Your task to perform on an android device: change text size in settings app Image 0: 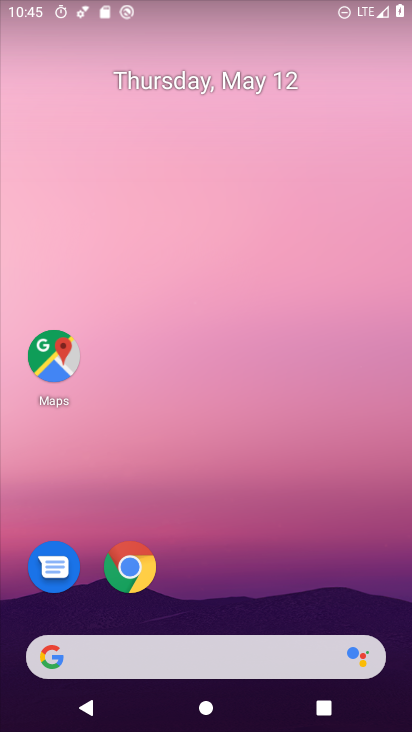
Step 0: drag from (261, 591) to (310, 259)
Your task to perform on an android device: change text size in settings app Image 1: 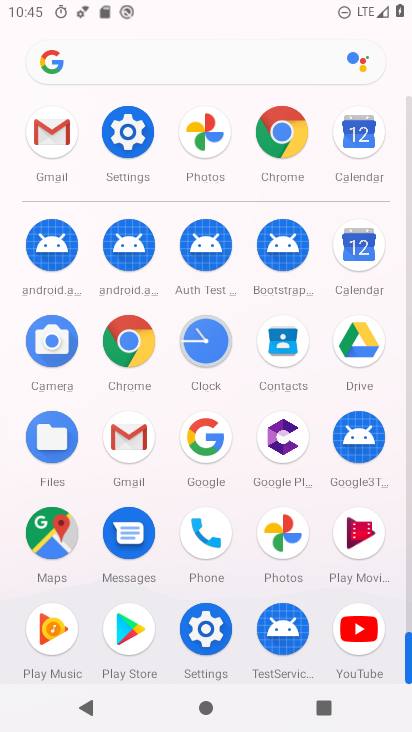
Step 1: click (130, 149)
Your task to perform on an android device: change text size in settings app Image 2: 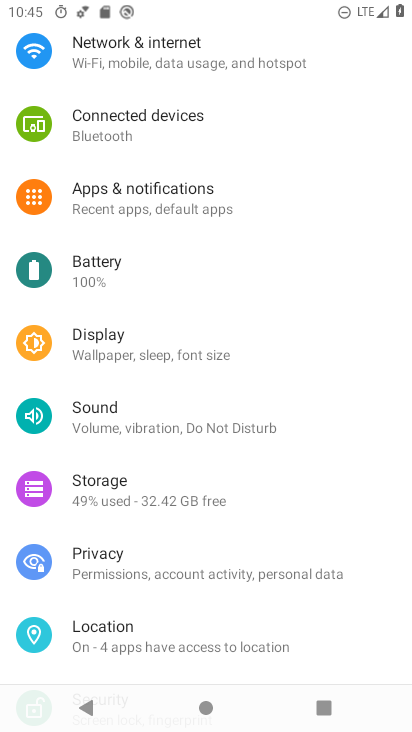
Step 2: drag from (158, 262) to (119, 506)
Your task to perform on an android device: change text size in settings app Image 3: 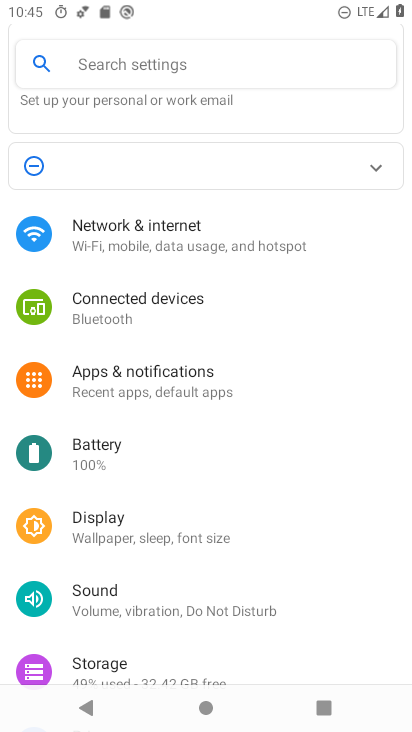
Step 3: drag from (180, 515) to (197, 399)
Your task to perform on an android device: change text size in settings app Image 4: 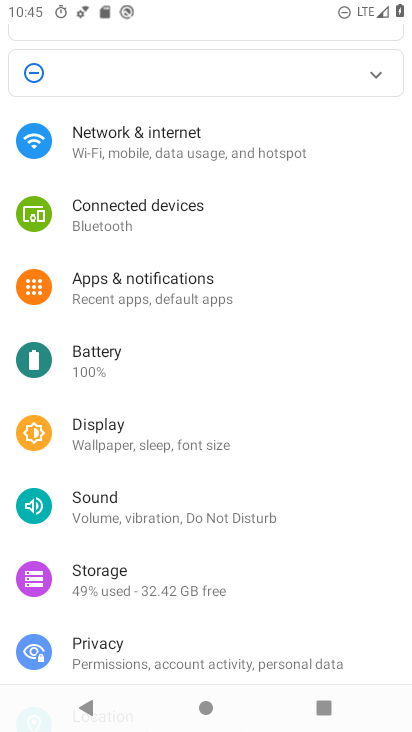
Step 4: drag from (183, 449) to (185, 249)
Your task to perform on an android device: change text size in settings app Image 5: 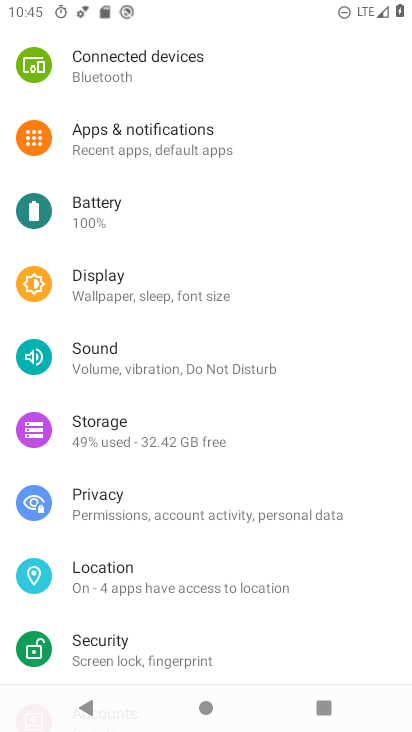
Step 5: drag from (139, 567) to (189, 322)
Your task to perform on an android device: change text size in settings app Image 6: 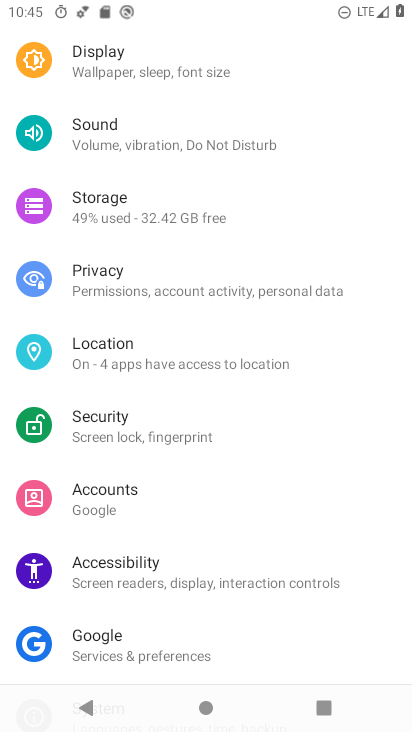
Step 6: drag from (161, 521) to (216, 282)
Your task to perform on an android device: change text size in settings app Image 7: 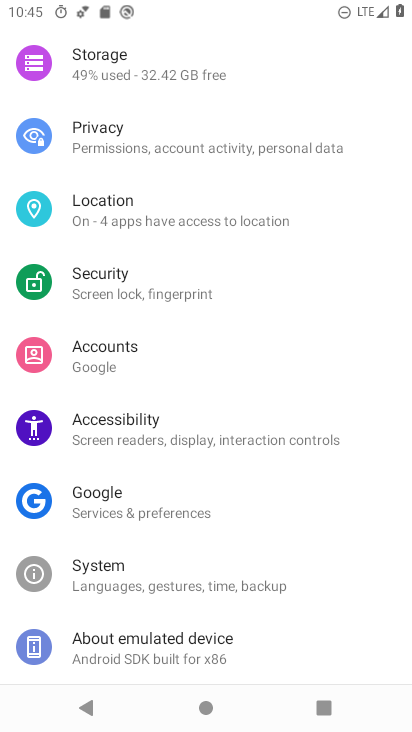
Step 7: drag from (184, 219) to (176, 635)
Your task to perform on an android device: change text size in settings app Image 8: 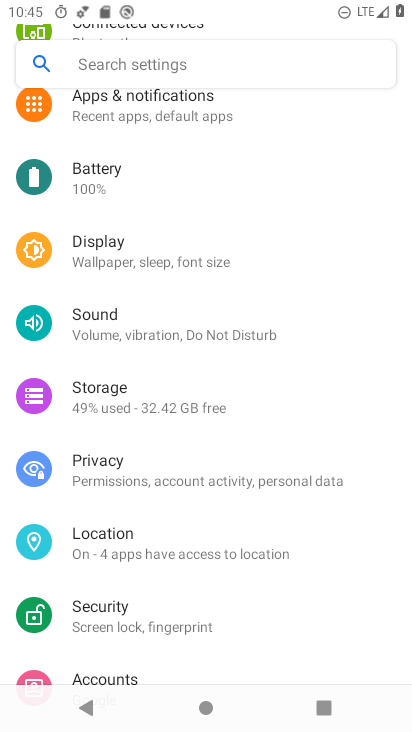
Step 8: click (181, 259)
Your task to perform on an android device: change text size in settings app Image 9: 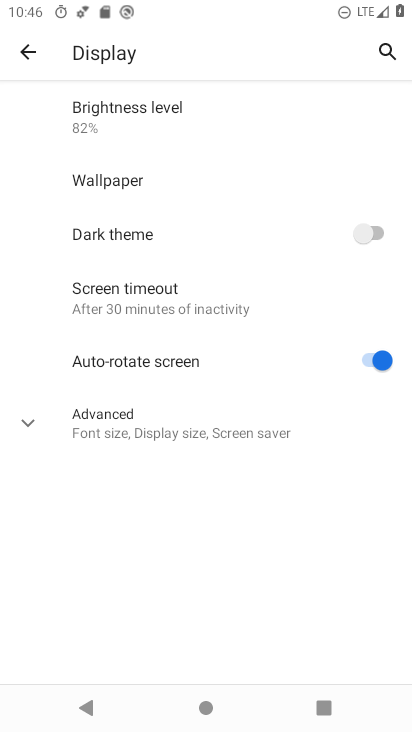
Step 9: click (123, 429)
Your task to perform on an android device: change text size in settings app Image 10: 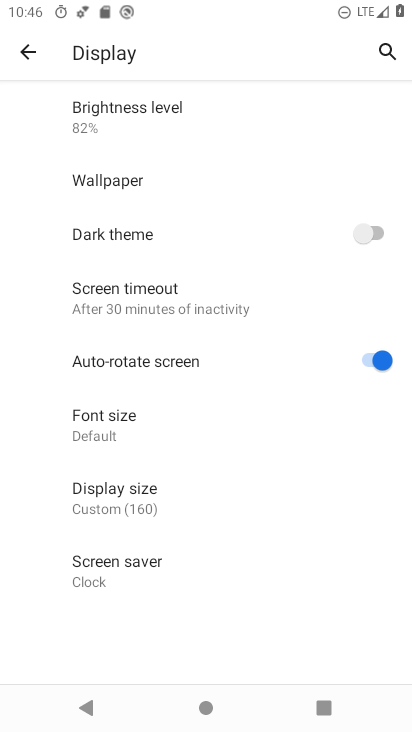
Step 10: drag from (173, 418) to (171, 203)
Your task to perform on an android device: change text size in settings app Image 11: 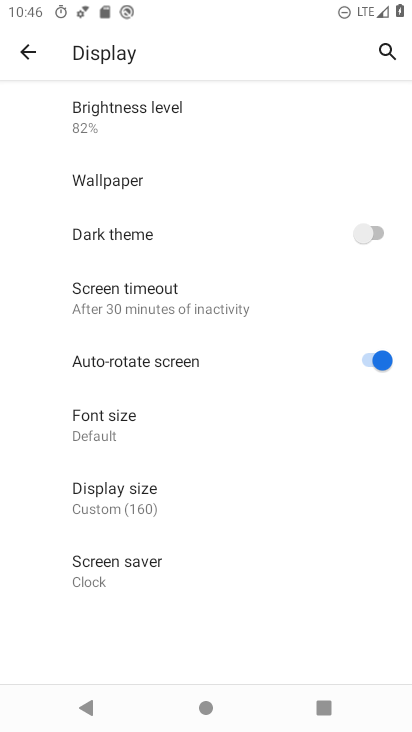
Step 11: click (129, 447)
Your task to perform on an android device: change text size in settings app Image 12: 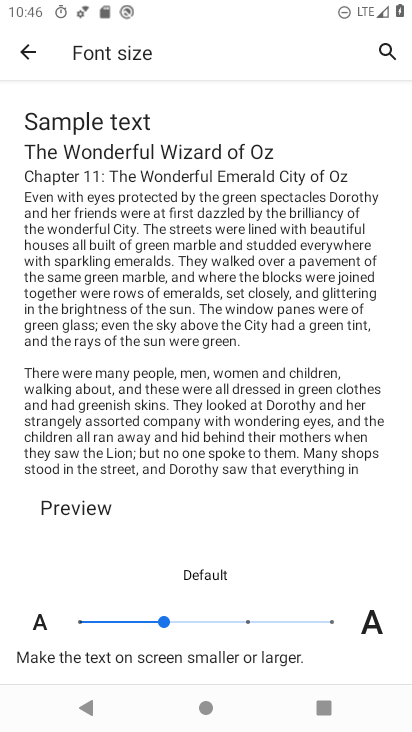
Step 12: click (234, 624)
Your task to perform on an android device: change text size in settings app Image 13: 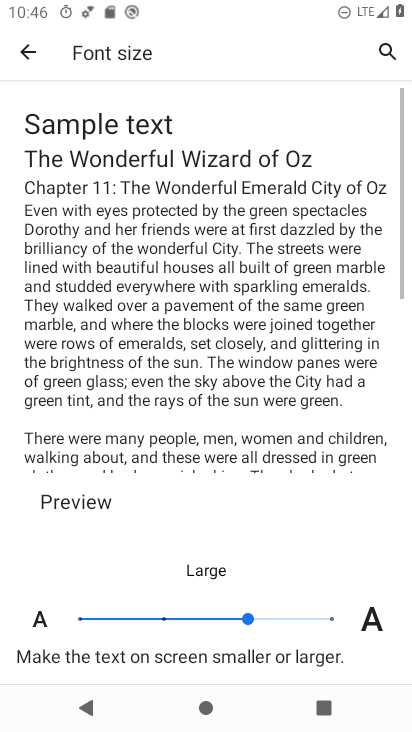
Step 13: task complete